Your task to perform on an android device: turn on location history Image 0: 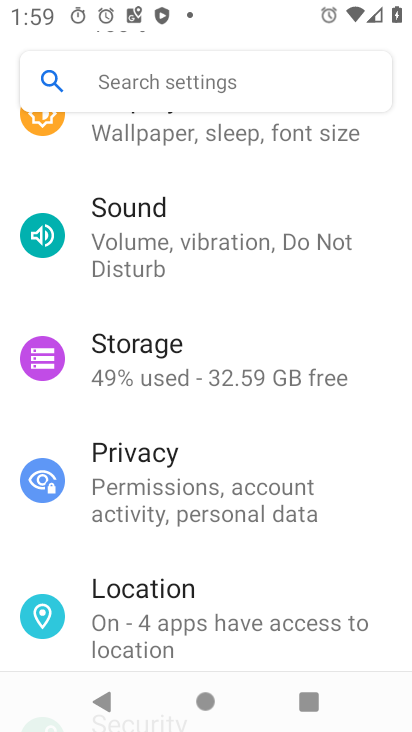
Step 0: press home button
Your task to perform on an android device: turn on location history Image 1: 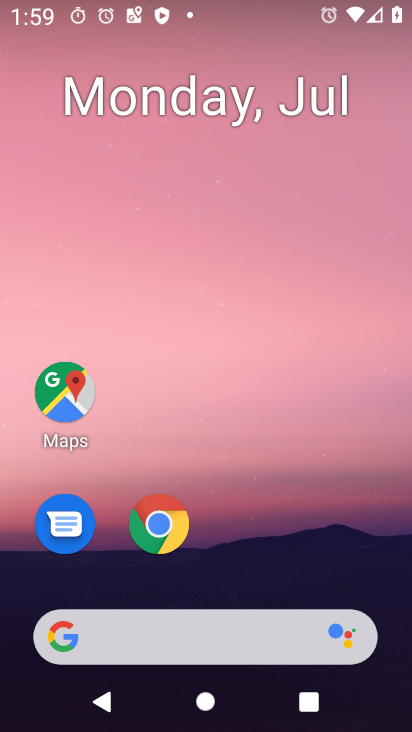
Step 1: click (304, 717)
Your task to perform on an android device: turn on location history Image 2: 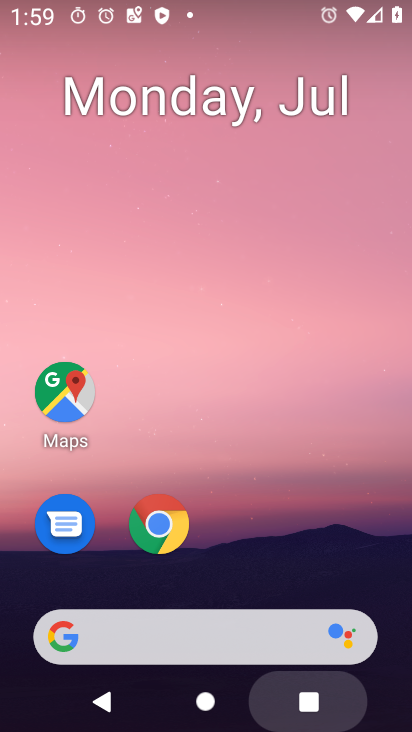
Step 2: drag from (283, 569) to (199, 90)
Your task to perform on an android device: turn on location history Image 3: 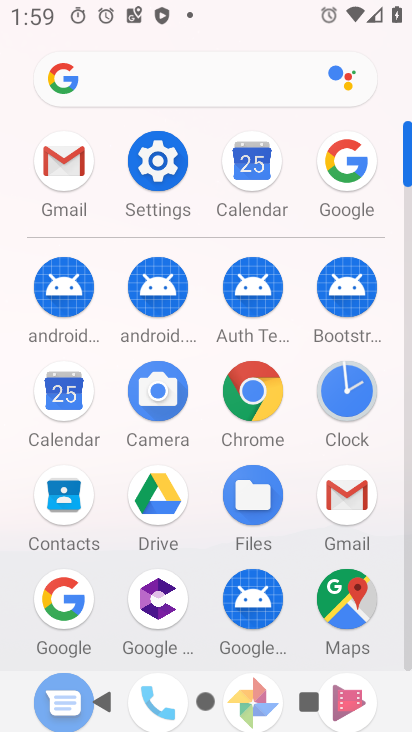
Step 3: click (160, 155)
Your task to perform on an android device: turn on location history Image 4: 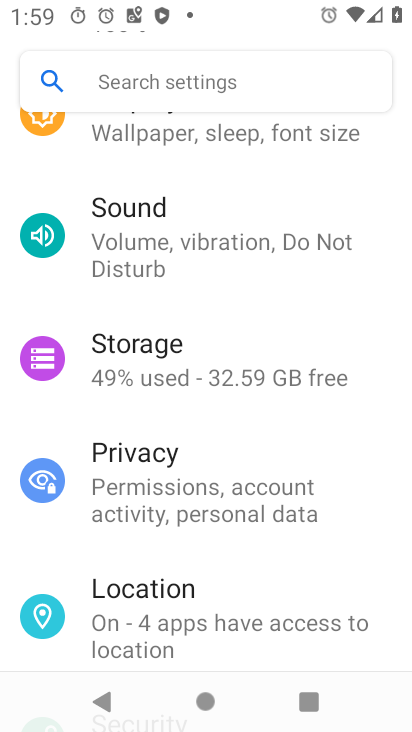
Step 4: drag from (189, 190) to (184, 225)
Your task to perform on an android device: turn on location history Image 5: 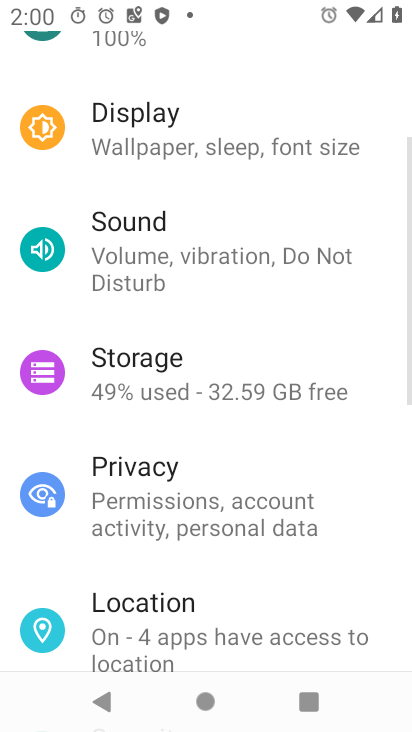
Step 5: click (169, 647)
Your task to perform on an android device: turn on location history Image 6: 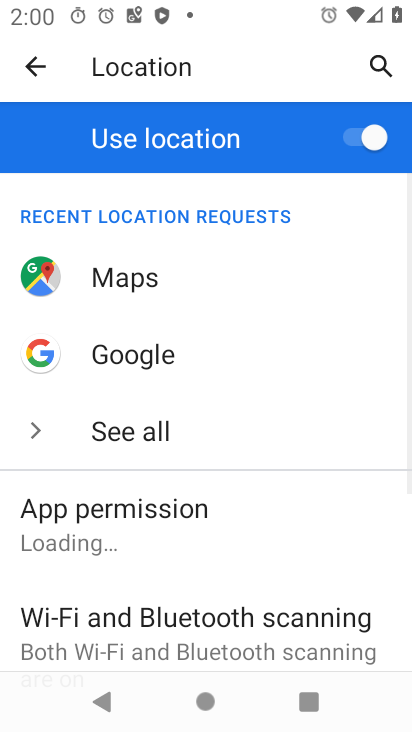
Step 6: drag from (210, 542) to (210, 186)
Your task to perform on an android device: turn on location history Image 7: 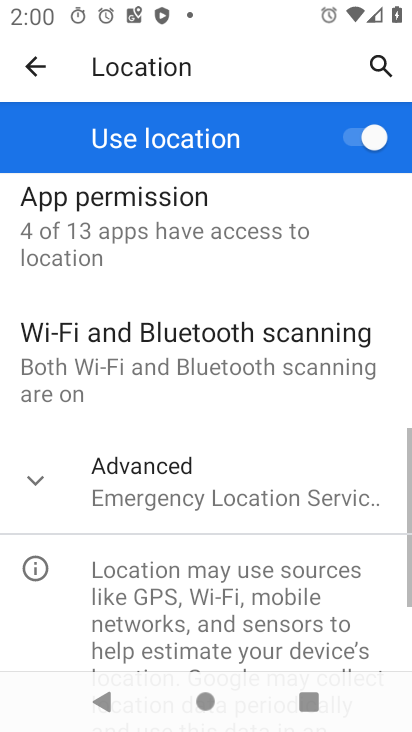
Step 7: click (36, 482)
Your task to perform on an android device: turn on location history Image 8: 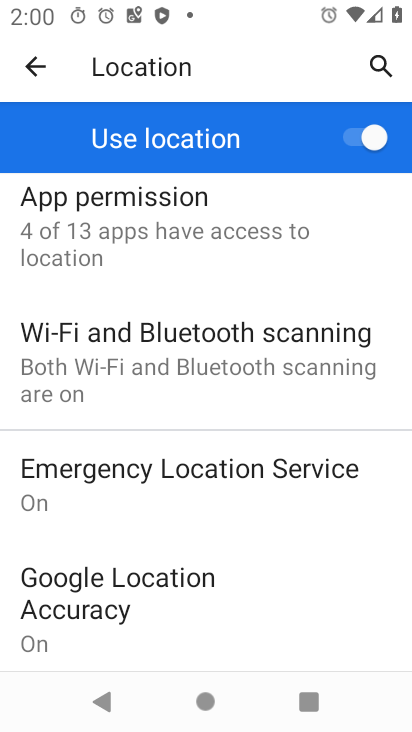
Step 8: drag from (236, 530) to (248, 232)
Your task to perform on an android device: turn on location history Image 9: 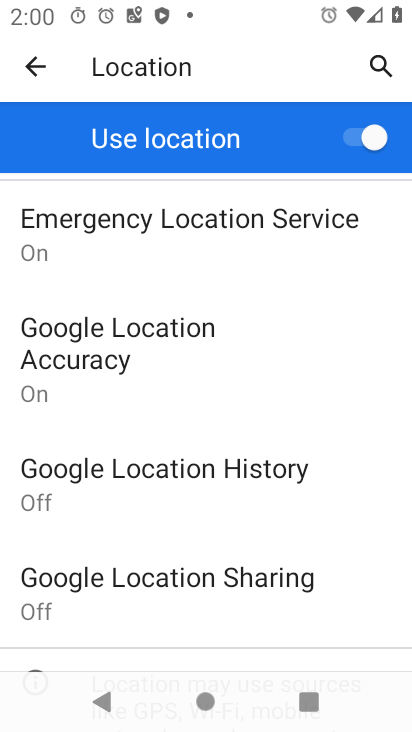
Step 9: click (146, 473)
Your task to perform on an android device: turn on location history Image 10: 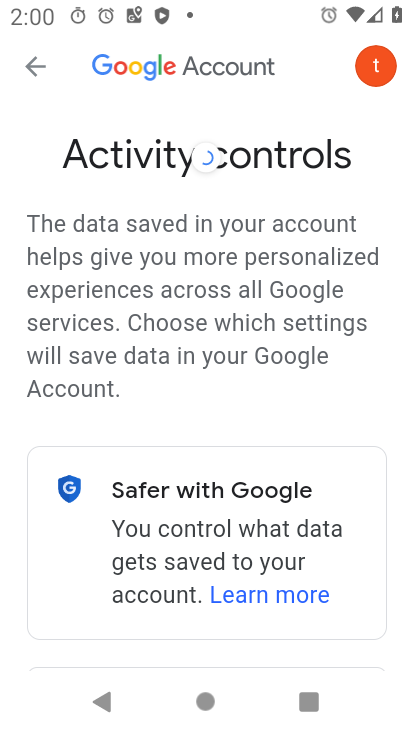
Step 10: drag from (395, 622) to (309, 78)
Your task to perform on an android device: turn on location history Image 11: 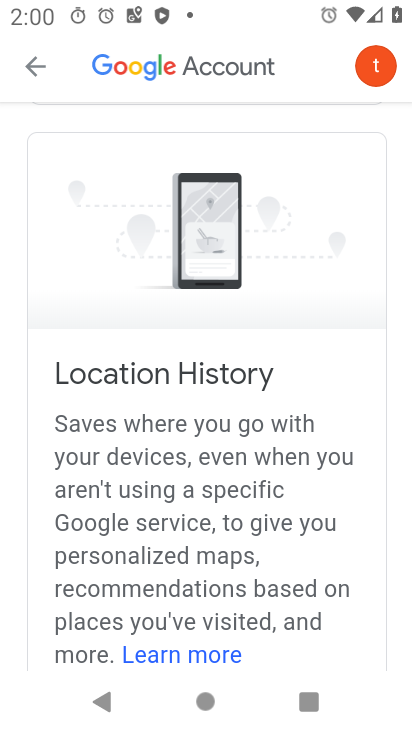
Step 11: drag from (272, 573) to (230, 101)
Your task to perform on an android device: turn on location history Image 12: 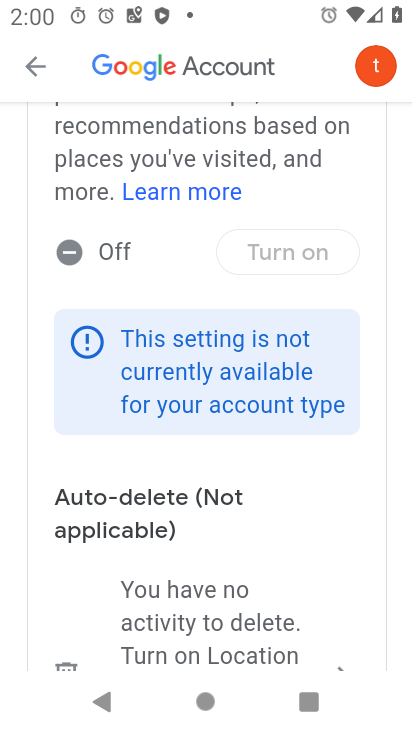
Step 12: click (315, 246)
Your task to perform on an android device: turn on location history Image 13: 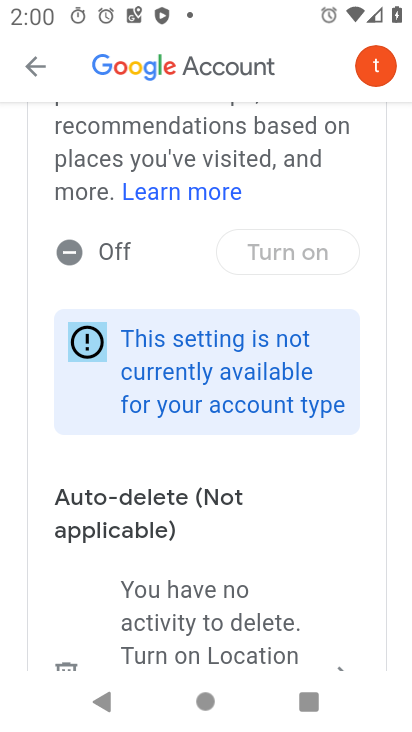
Step 13: click (317, 245)
Your task to perform on an android device: turn on location history Image 14: 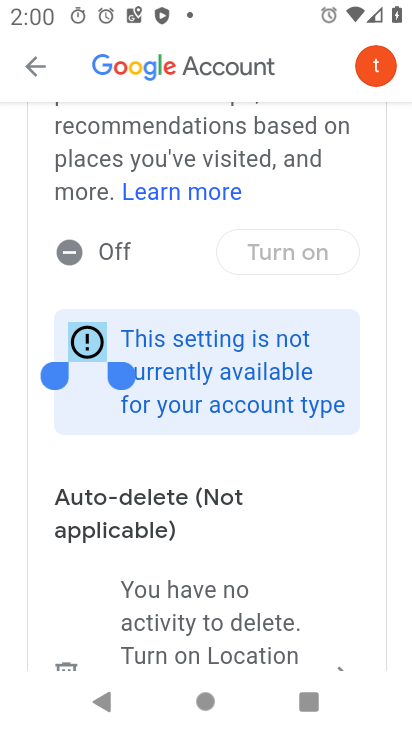
Step 14: click (317, 247)
Your task to perform on an android device: turn on location history Image 15: 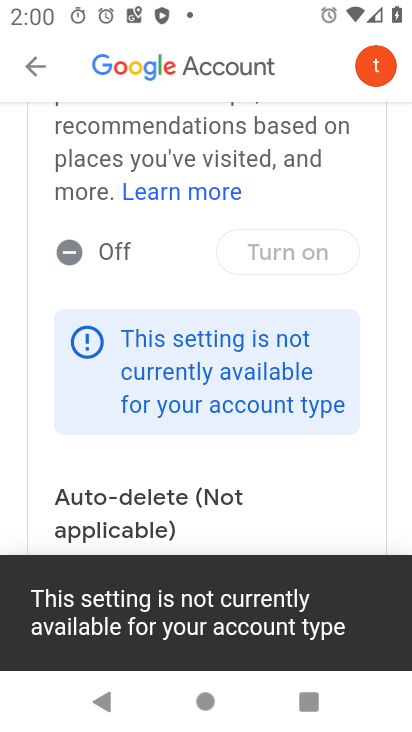
Step 15: click (92, 256)
Your task to perform on an android device: turn on location history Image 16: 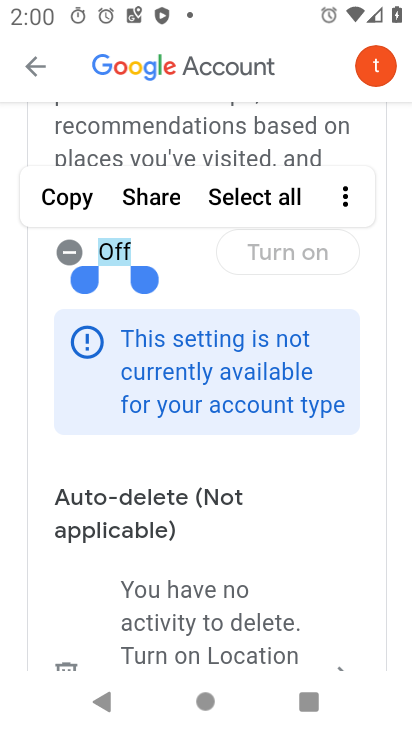
Step 16: task complete